Your task to perform on an android device: Check the news Image 0: 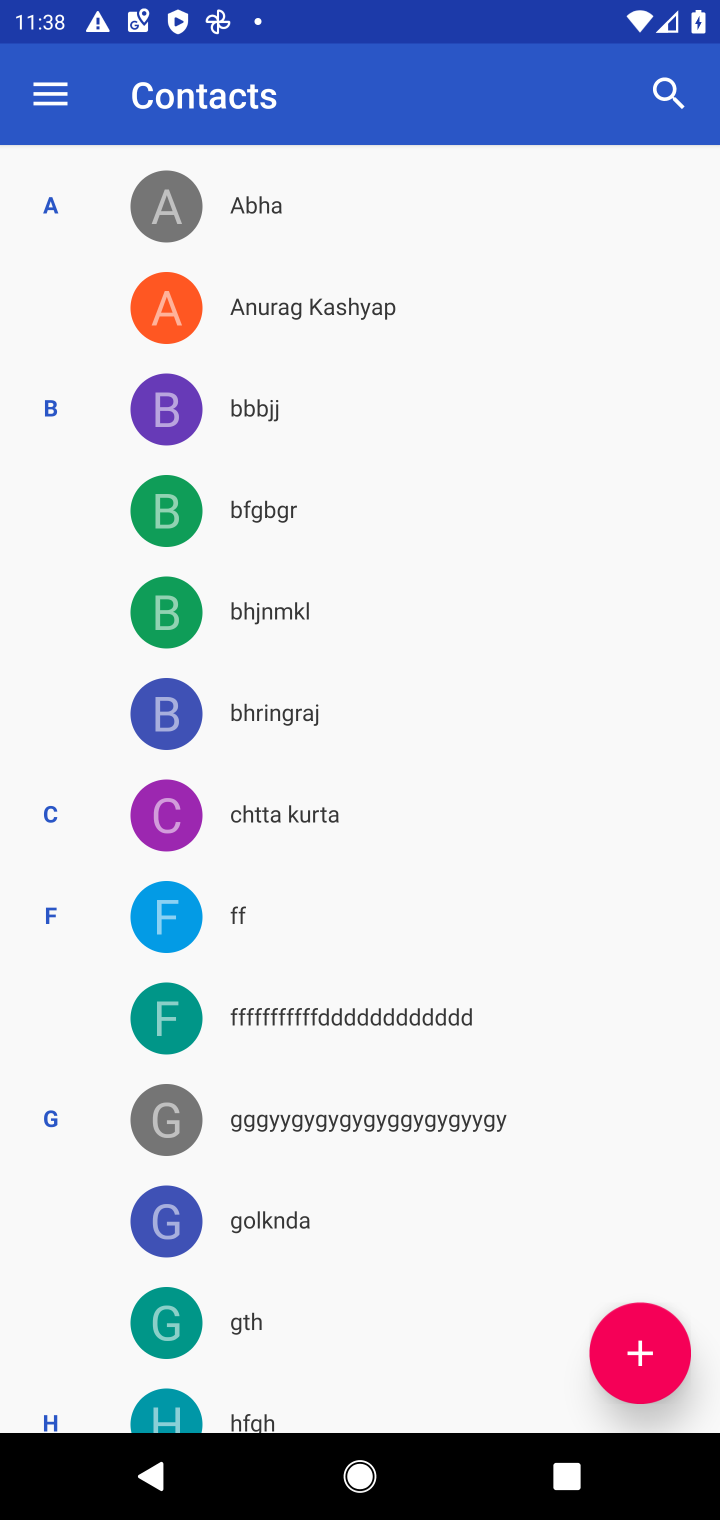
Step 0: press home button
Your task to perform on an android device: Check the news Image 1: 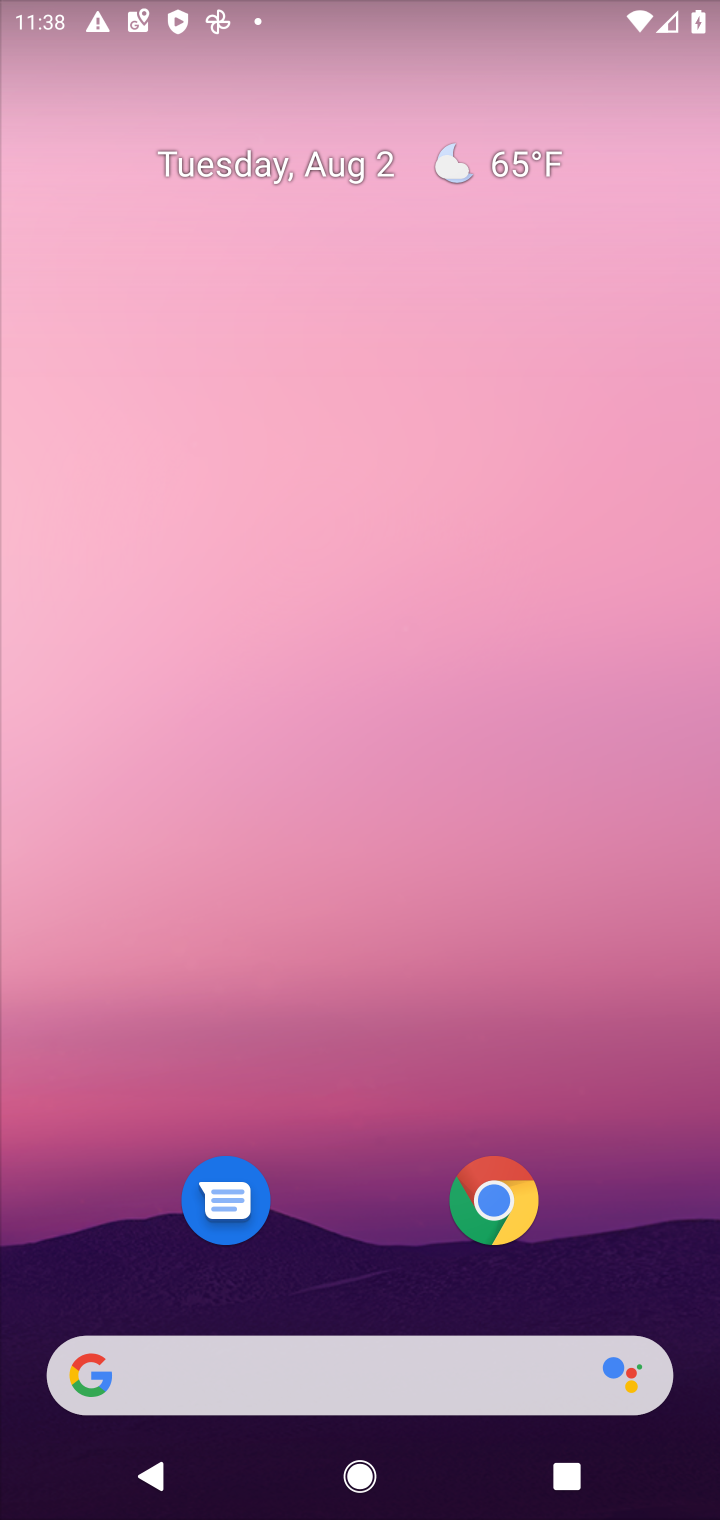
Step 1: task complete